Your task to perform on an android device: Go to Maps Image 0: 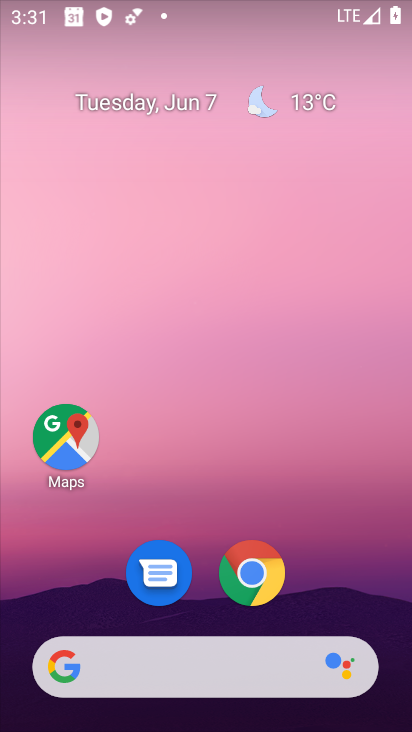
Step 0: click (74, 457)
Your task to perform on an android device: Go to Maps Image 1: 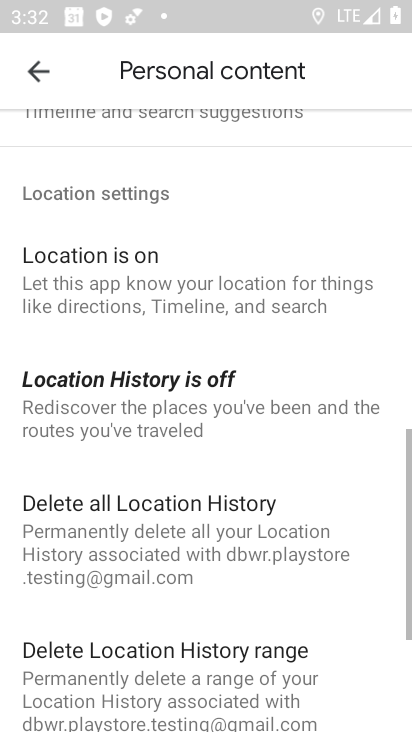
Step 1: click (50, 71)
Your task to perform on an android device: Go to Maps Image 2: 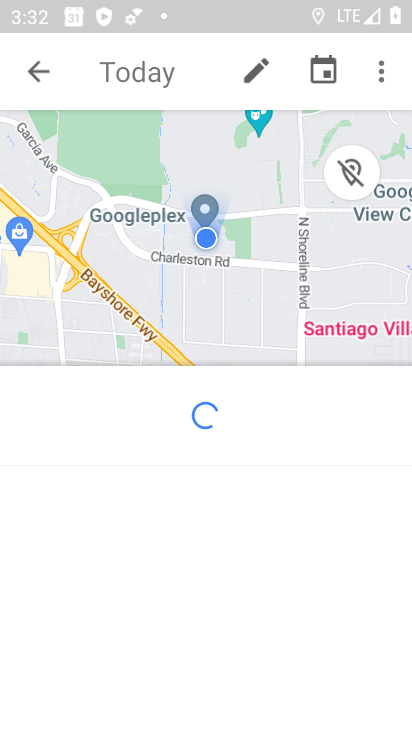
Step 2: click (50, 71)
Your task to perform on an android device: Go to Maps Image 3: 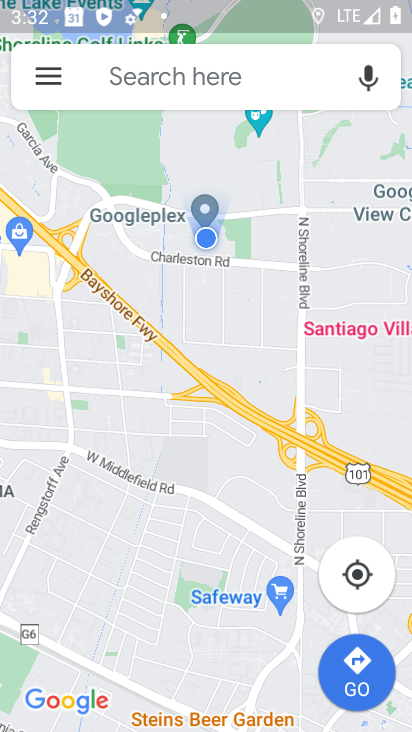
Step 3: task complete